Your task to perform on an android device: Go to Amazon Image 0: 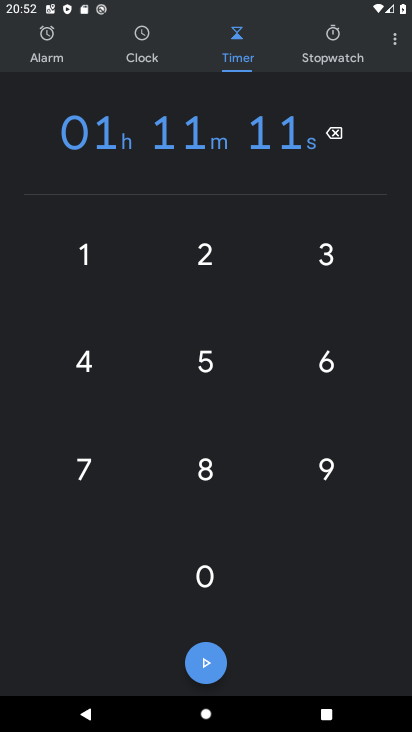
Step 0: press home button
Your task to perform on an android device: Go to Amazon Image 1: 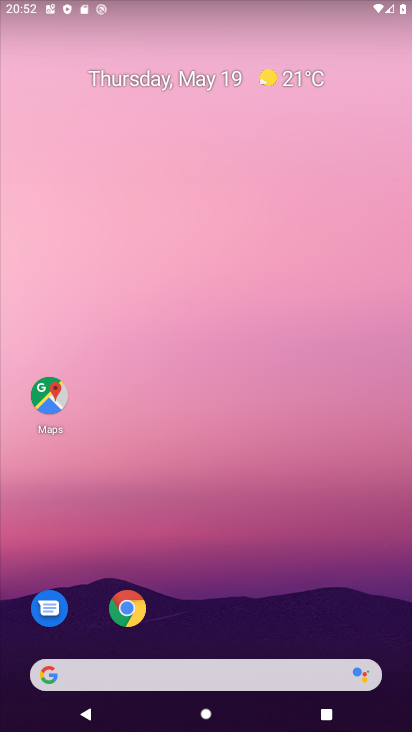
Step 1: click (129, 607)
Your task to perform on an android device: Go to Amazon Image 2: 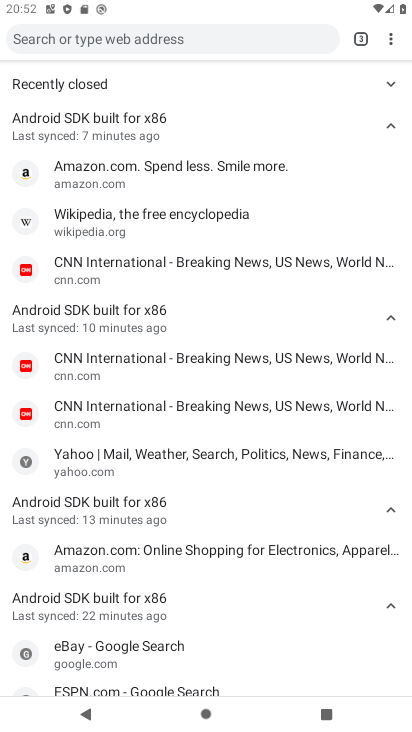
Step 2: click (389, 35)
Your task to perform on an android device: Go to Amazon Image 3: 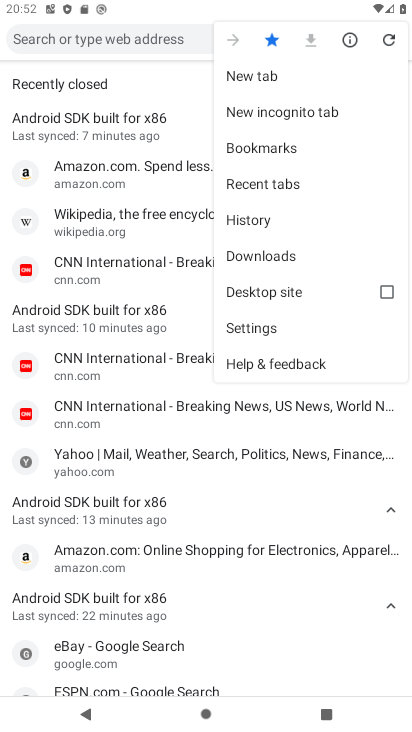
Step 3: click (246, 74)
Your task to perform on an android device: Go to Amazon Image 4: 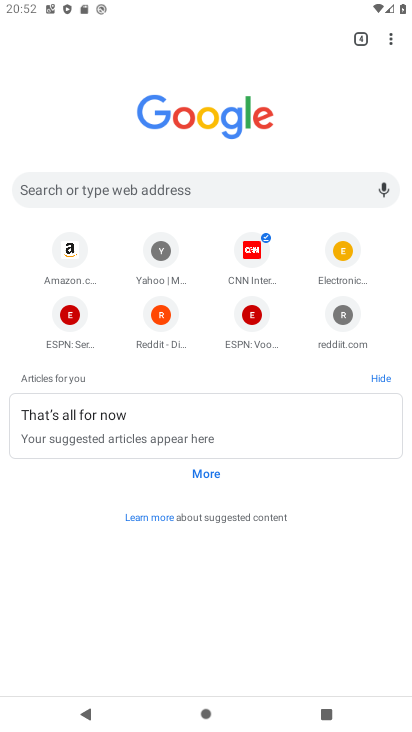
Step 4: click (63, 251)
Your task to perform on an android device: Go to Amazon Image 5: 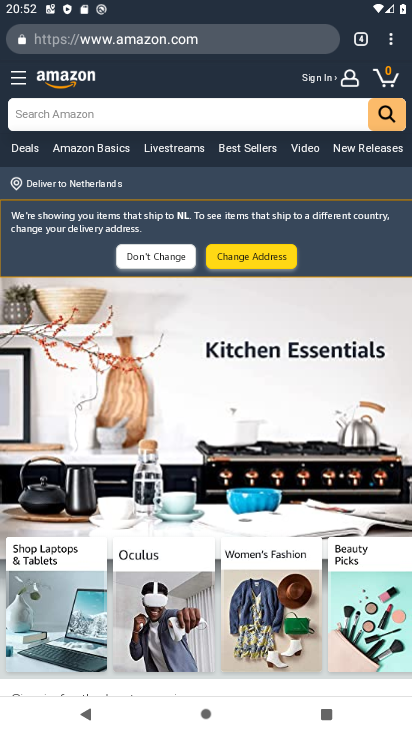
Step 5: task complete